Your task to perform on an android device: turn off location history Image 0: 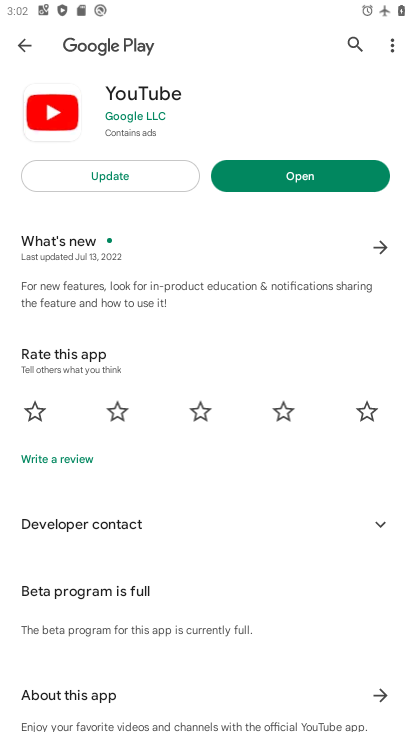
Step 0: click (302, 182)
Your task to perform on an android device: turn off location history Image 1: 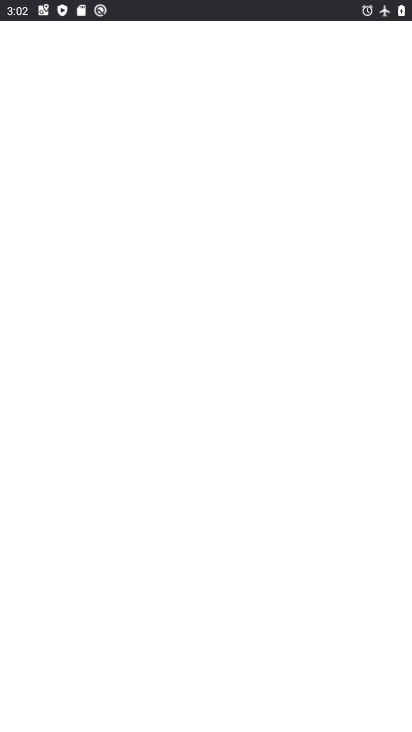
Step 1: task complete